Your task to perform on an android device: check android version Image 0: 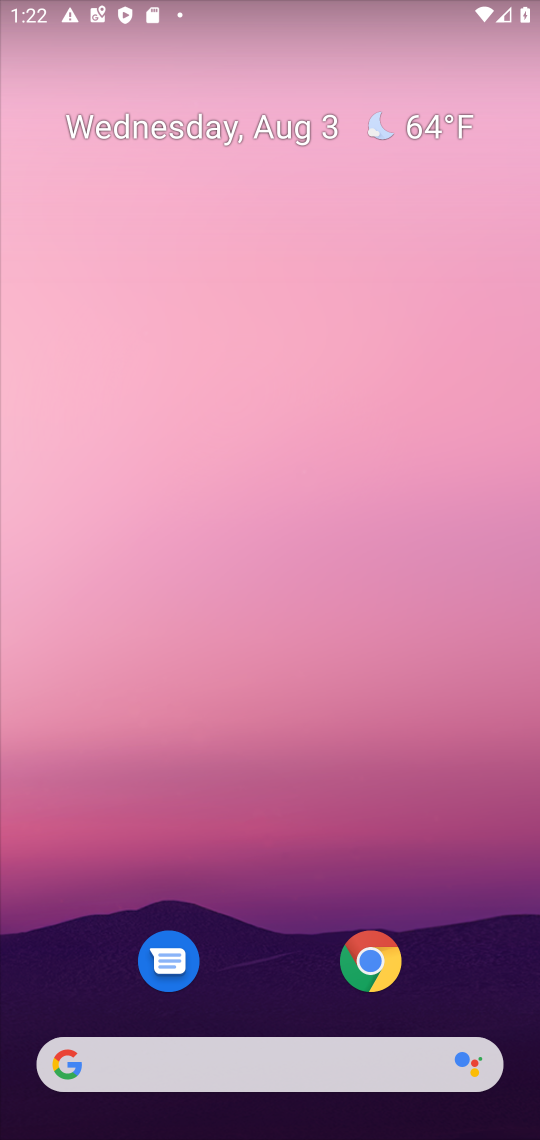
Step 0: drag from (272, 974) to (250, 1)
Your task to perform on an android device: check android version Image 1: 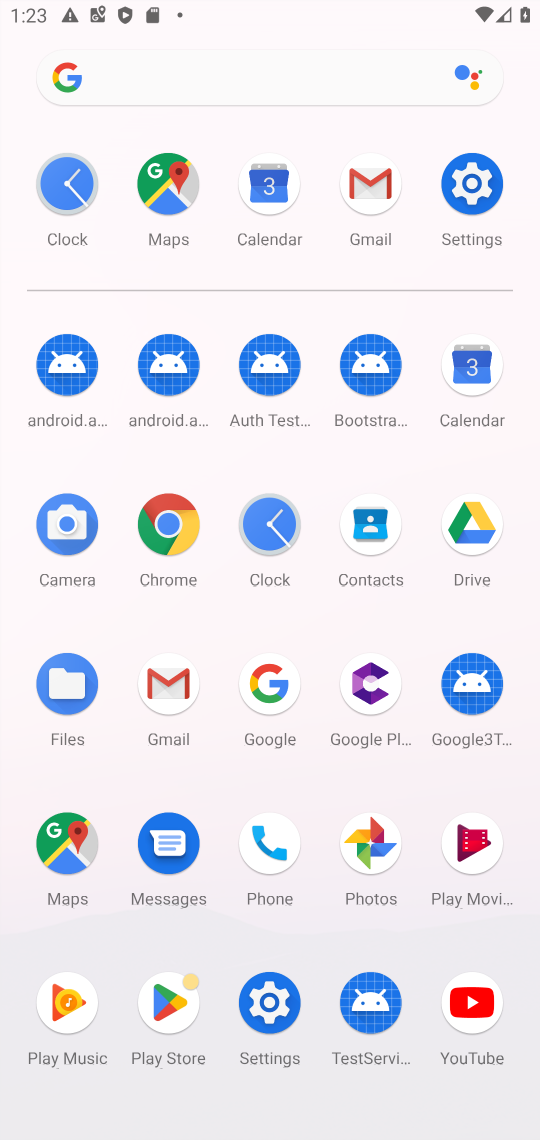
Step 1: click (469, 195)
Your task to perform on an android device: check android version Image 2: 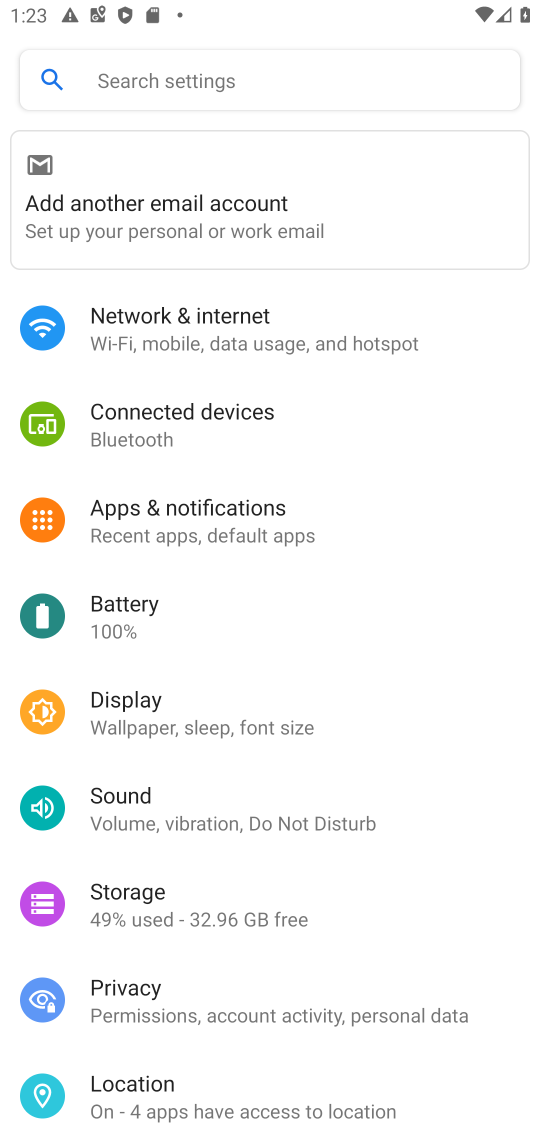
Step 2: drag from (495, 1019) to (470, 118)
Your task to perform on an android device: check android version Image 3: 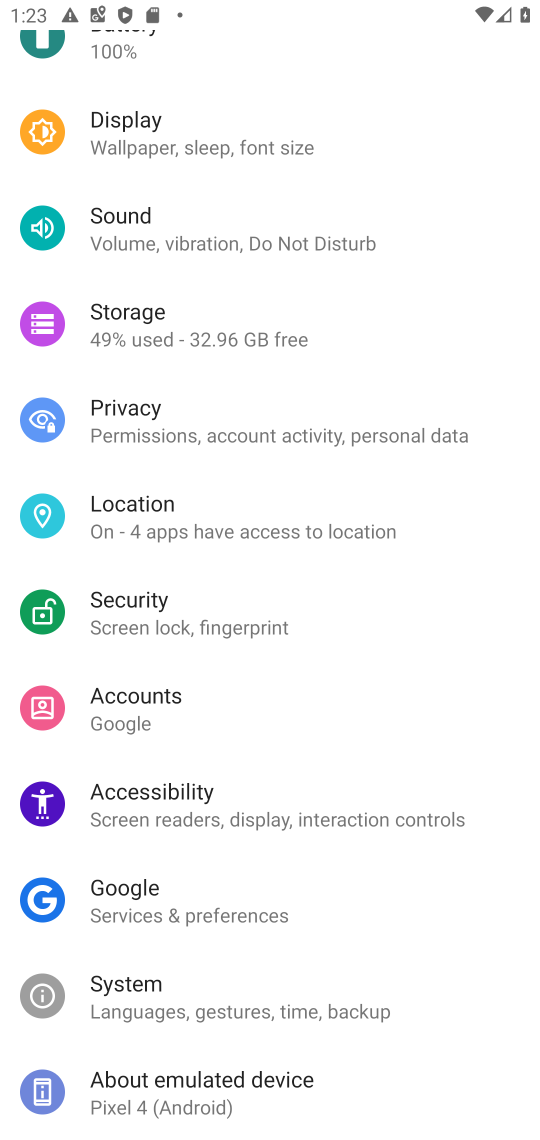
Step 3: click (183, 1103)
Your task to perform on an android device: check android version Image 4: 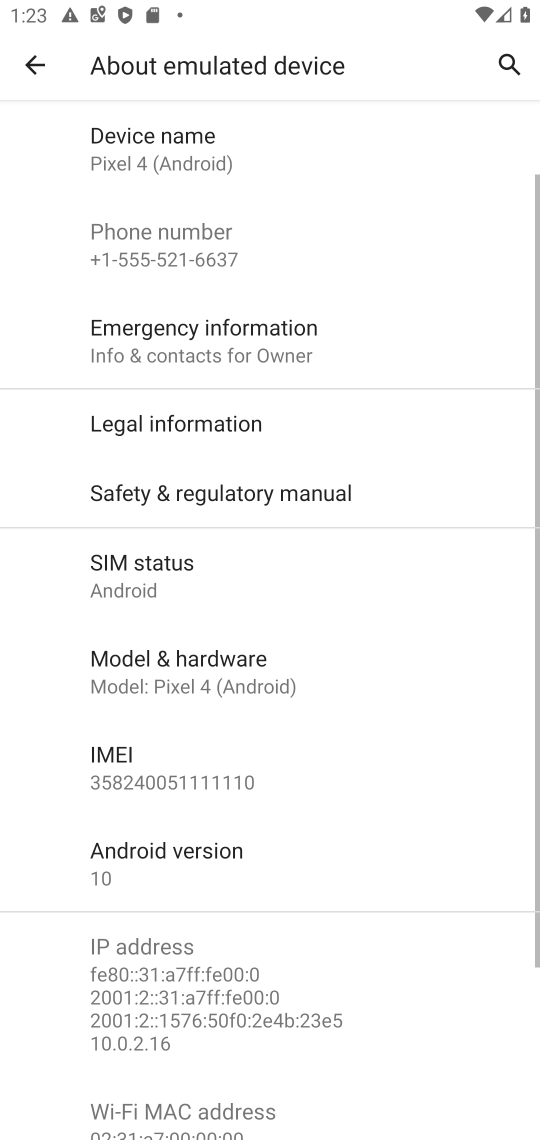
Step 4: click (194, 878)
Your task to perform on an android device: check android version Image 5: 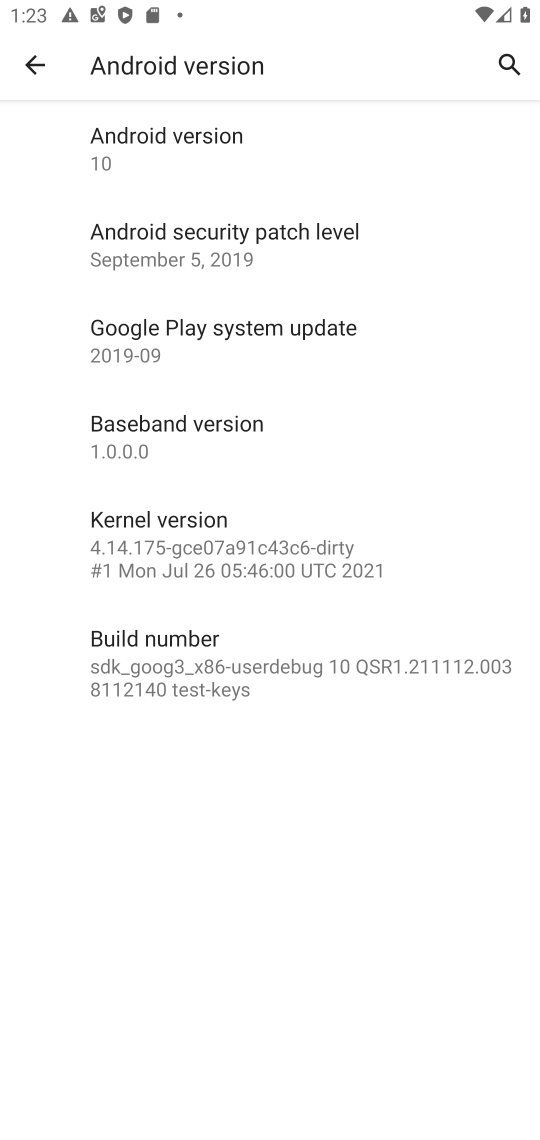
Step 5: task complete